Your task to perform on an android device: Open my contact list Image 0: 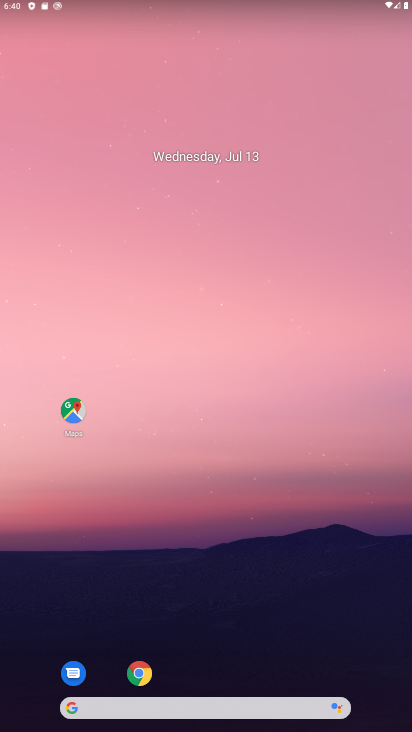
Step 0: drag from (216, 579) to (215, 13)
Your task to perform on an android device: Open my contact list Image 1: 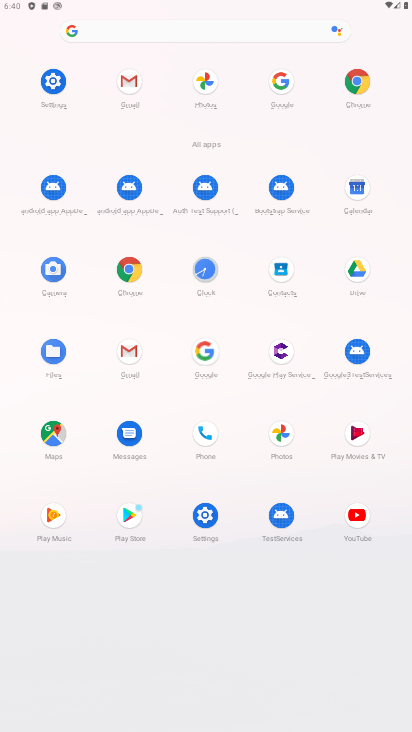
Step 1: click (205, 437)
Your task to perform on an android device: Open my contact list Image 2: 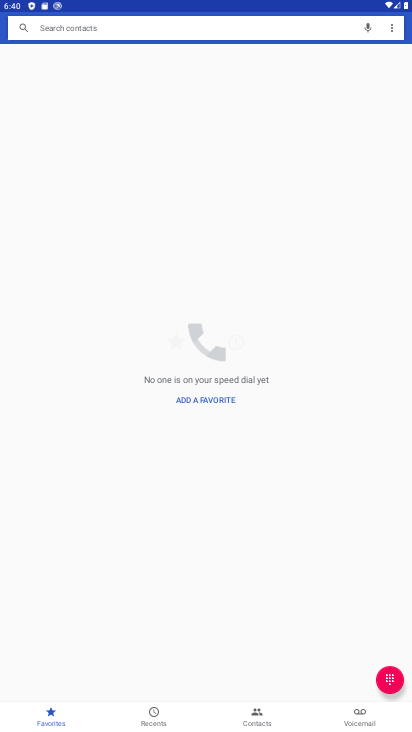
Step 2: click (260, 713)
Your task to perform on an android device: Open my contact list Image 3: 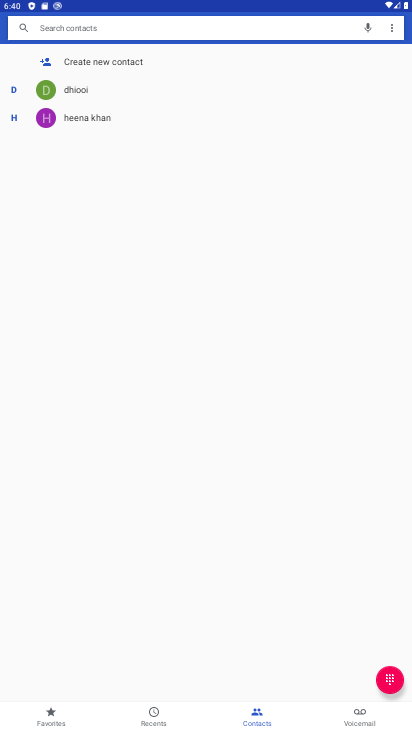
Step 3: task complete